Your task to perform on an android device: find which apps use the phone's location Image 0: 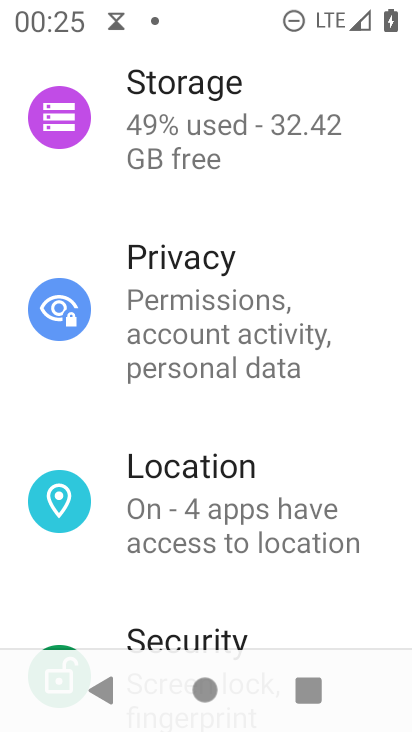
Step 0: click (187, 505)
Your task to perform on an android device: find which apps use the phone's location Image 1: 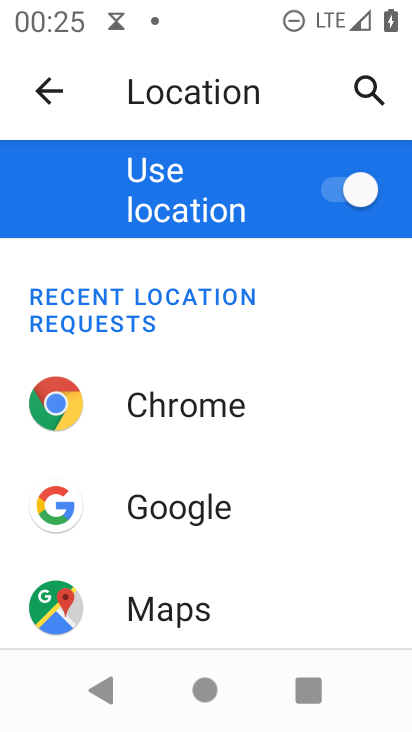
Step 1: drag from (250, 637) to (252, 186)
Your task to perform on an android device: find which apps use the phone's location Image 2: 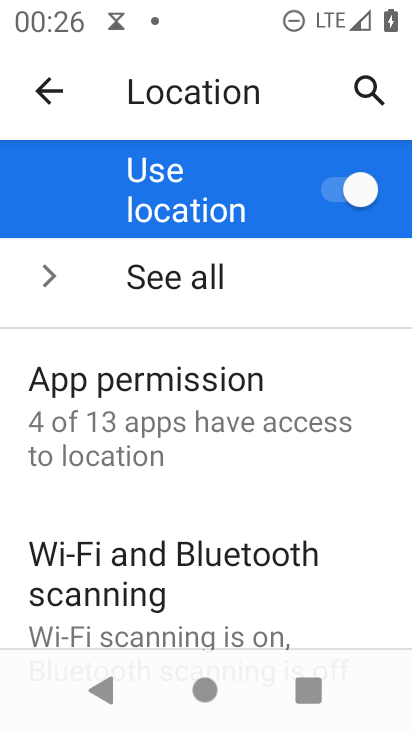
Step 2: click (135, 415)
Your task to perform on an android device: find which apps use the phone's location Image 3: 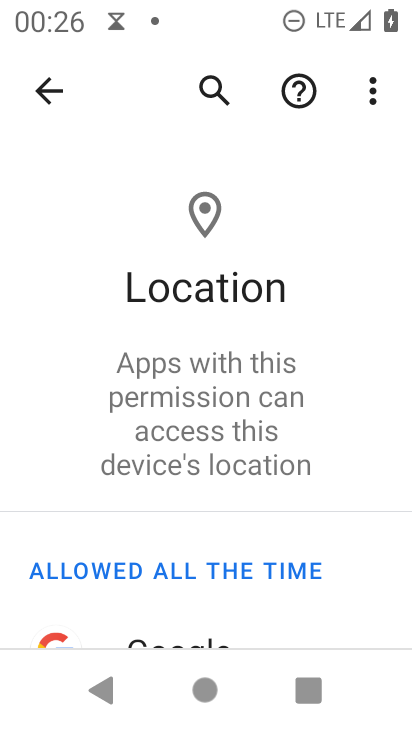
Step 3: task complete